Your task to perform on an android device: Open notification settings Image 0: 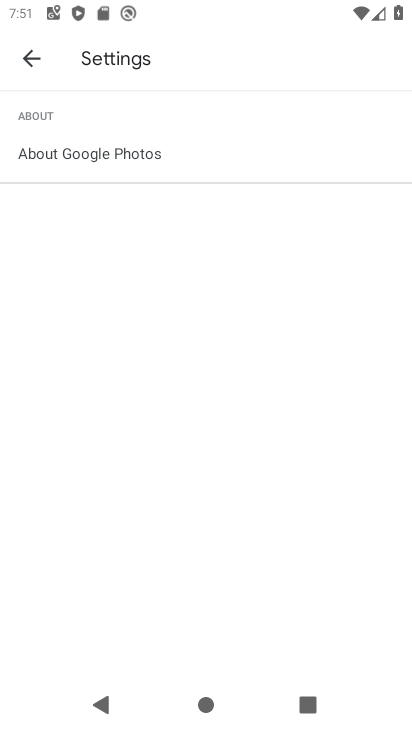
Step 0: press home button
Your task to perform on an android device: Open notification settings Image 1: 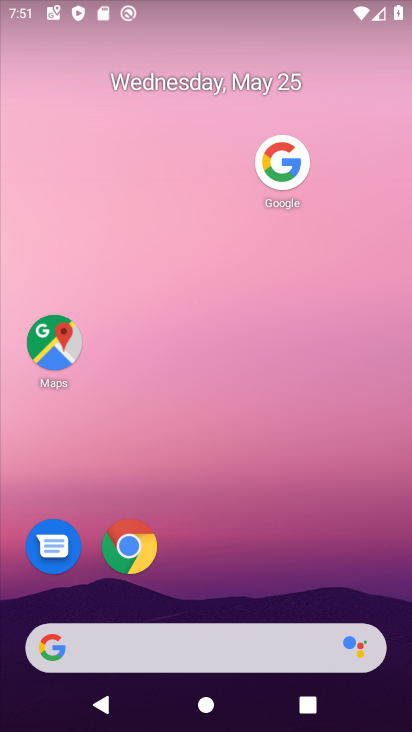
Step 1: drag from (173, 649) to (331, 99)
Your task to perform on an android device: Open notification settings Image 2: 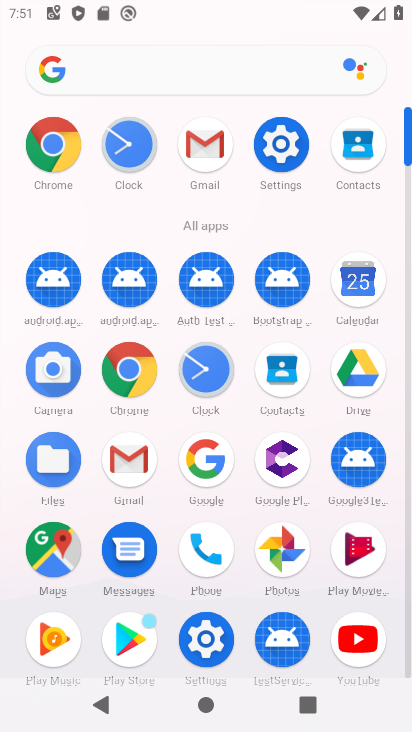
Step 2: click (291, 144)
Your task to perform on an android device: Open notification settings Image 3: 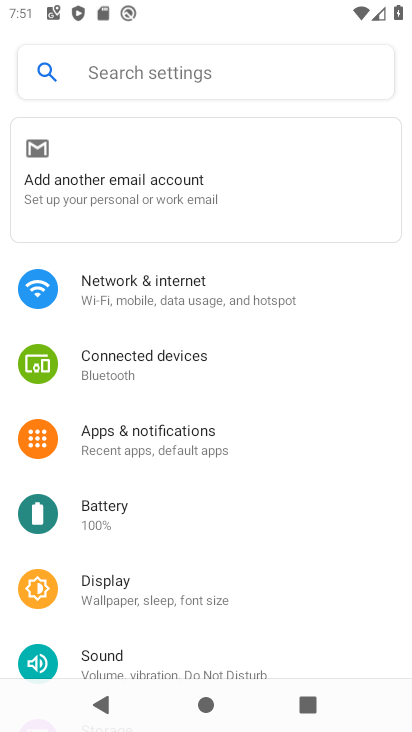
Step 3: click (186, 435)
Your task to perform on an android device: Open notification settings Image 4: 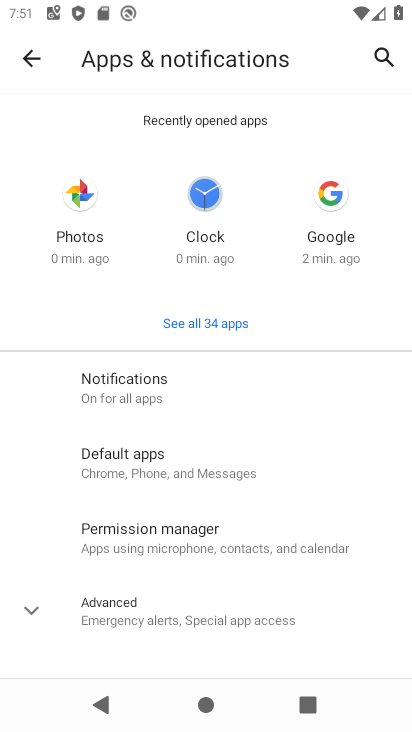
Step 4: click (161, 388)
Your task to perform on an android device: Open notification settings Image 5: 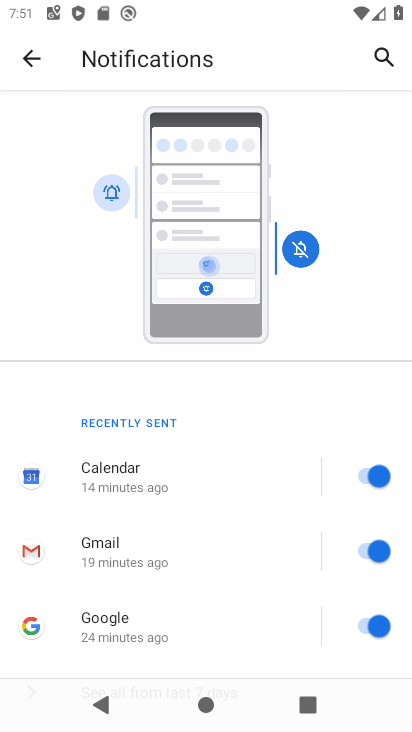
Step 5: task complete